Your task to perform on an android device: Show me productivity apps on the Play Store Image 0: 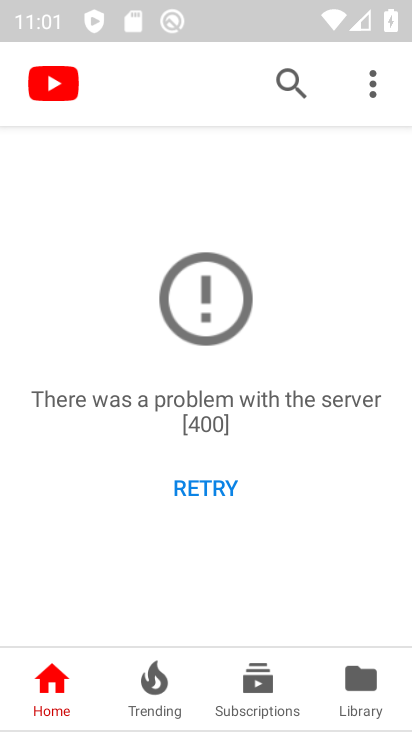
Step 0: press home button
Your task to perform on an android device: Show me productivity apps on the Play Store Image 1: 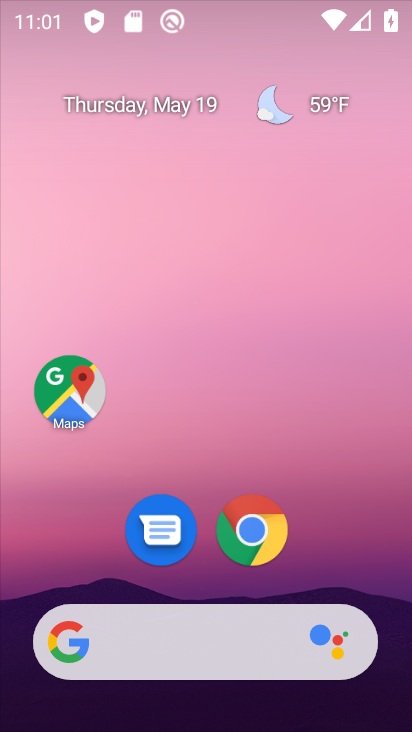
Step 1: drag from (368, 603) to (344, 119)
Your task to perform on an android device: Show me productivity apps on the Play Store Image 2: 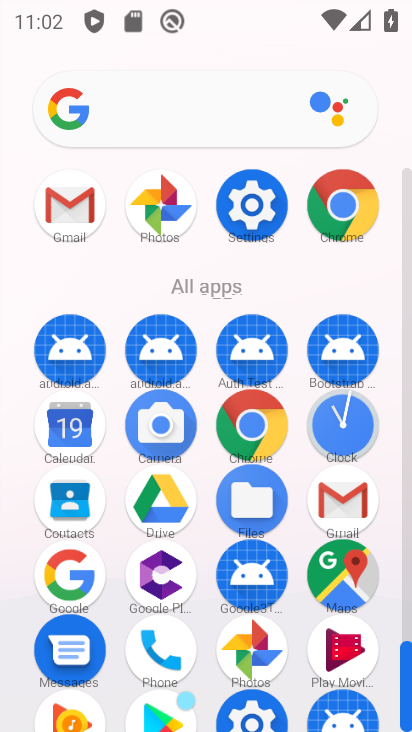
Step 2: drag from (203, 625) to (200, 318)
Your task to perform on an android device: Show me productivity apps on the Play Store Image 3: 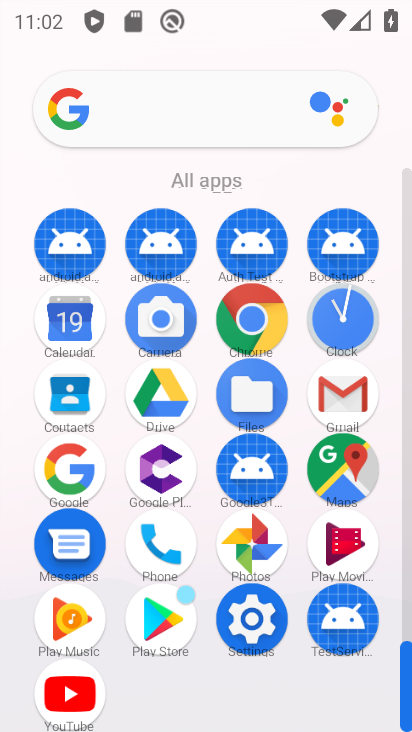
Step 3: click (155, 632)
Your task to perform on an android device: Show me productivity apps on the Play Store Image 4: 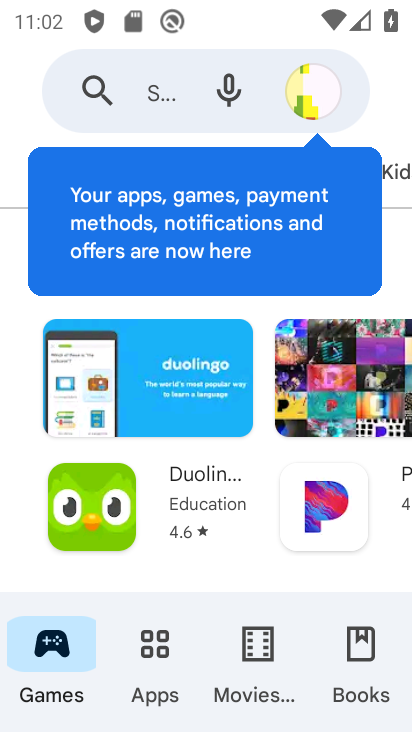
Step 4: click (161, 639)
Your task to perform on an android device: Show me productivity apps on the Play Store Image 5: 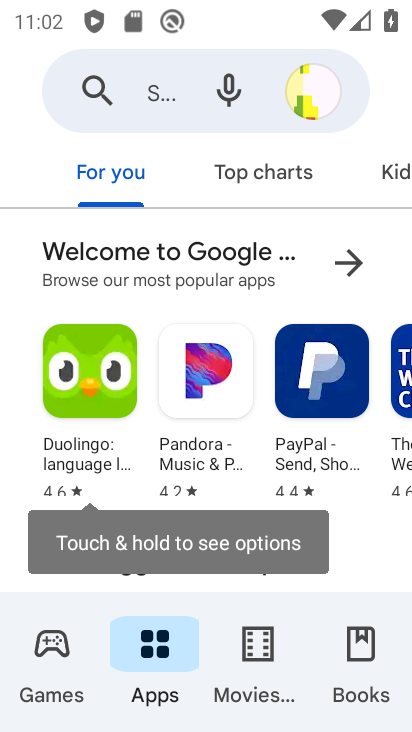
Step 5: drag from (361, 169) to (36, 190)
Your task to perform on an android device: Show me productivity apps on the Play Store Image 6: 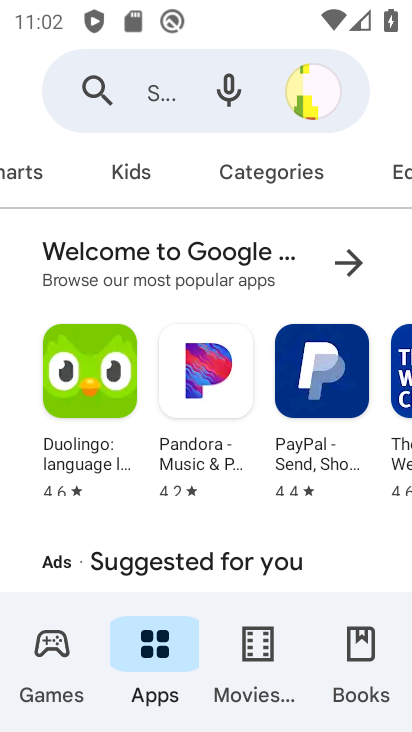
Step 6: click (298, 175)
Your task to perform on an android device: Show me productivity apps on the Play Store Image 7: 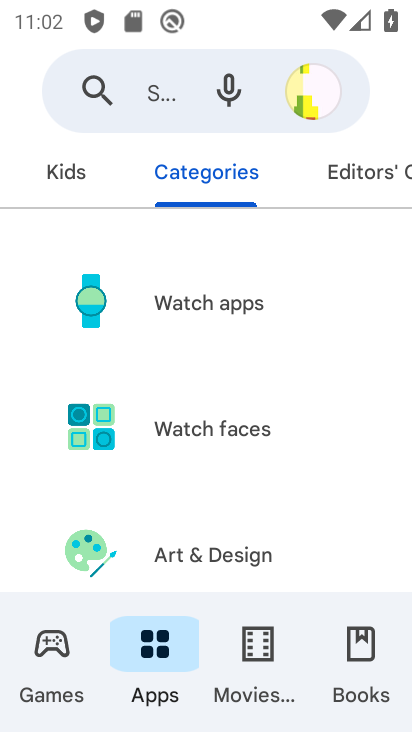
Step 7: drag from (290, 558) to (315, 228)
Your task to perform on an android device: Show me productivity apps on the Play Store Image 8: 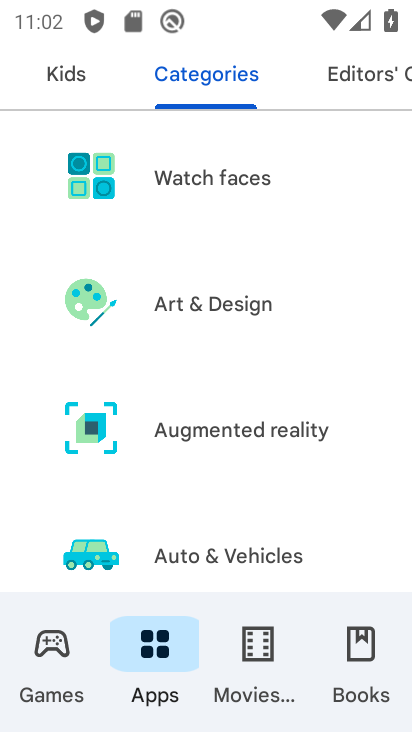
Step 8: drag from (304, 573) to (299, 242)
Your task to perform on an android device: Show me productivity apps on the Play Store Image 9: 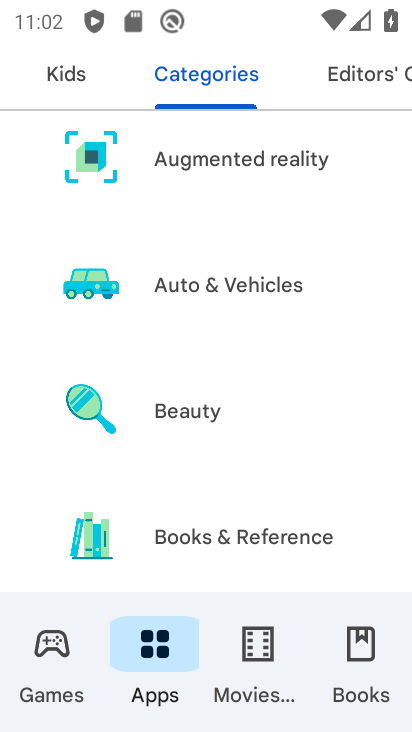
Step 9: drag from (292, 535) to (295, 202)
Your task to perform on an android device: Show me productivity apps on the Play Store Image 10: 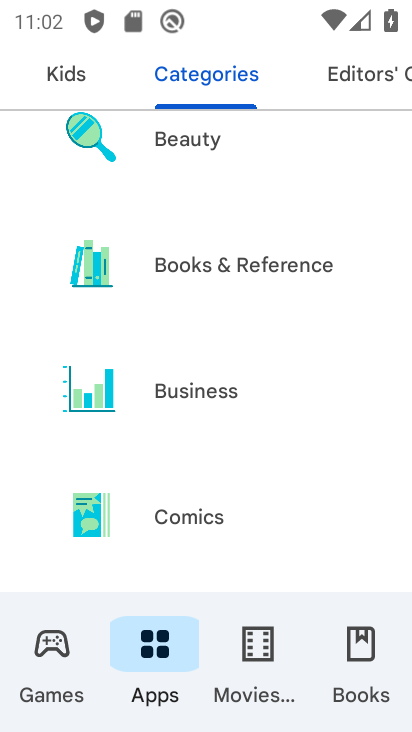
Step 10: drag from (244, 556) to (278, 190)
Your task to perform on an android device: Show me productivity apps on the Play Store Image 11: 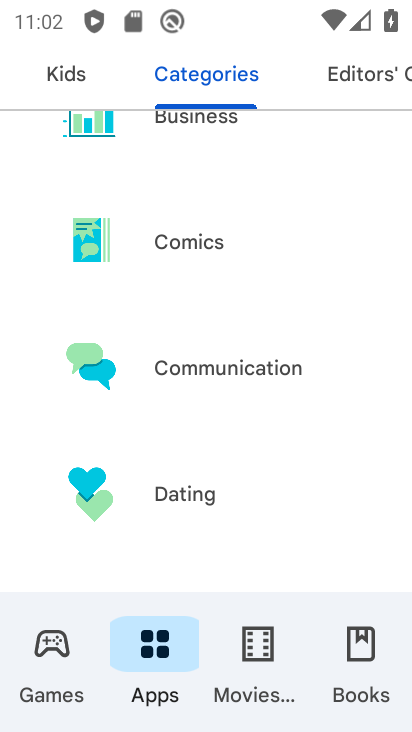
Step 11: drag from (266, 548) to (264, 212)
Your task to perform on an android device: Show me productivity apps on the Play Store Image 12: 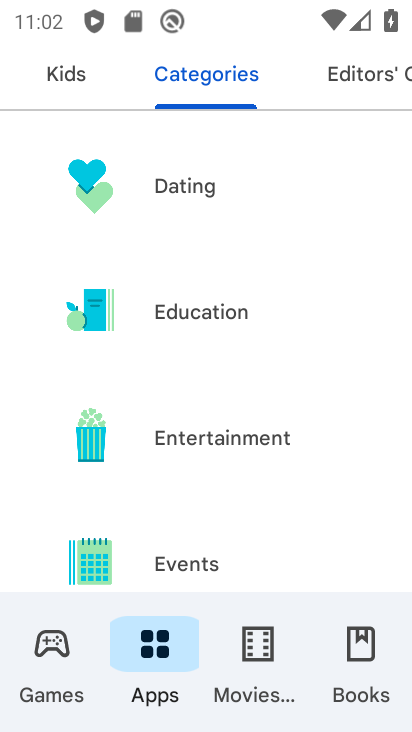
Step 12: drag from (265, 451) to (244, 140)
Your task to perform on an android device: Show me productivity apps on the Play Store Image 13: 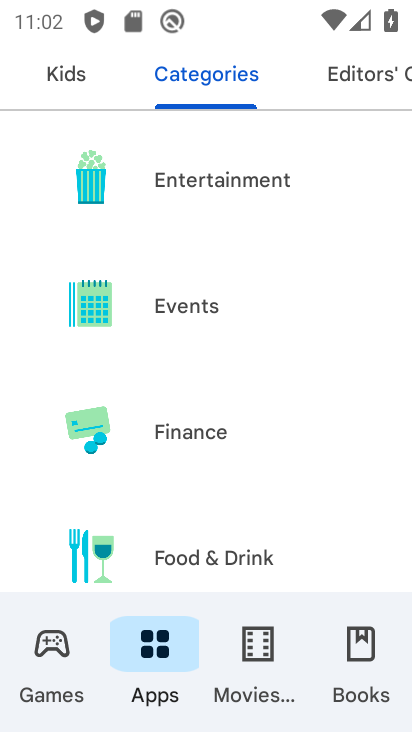
Step 13: drag from (274, 588) to (278, 211)
Your task to perform on an android device: Show me productivity apps on the Play Store Image 14: 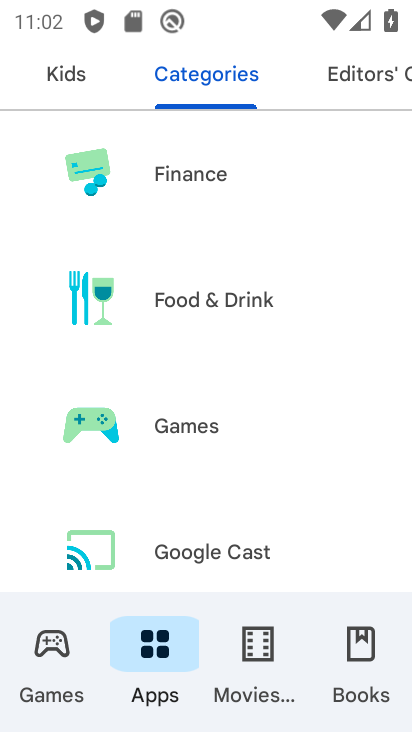
Step 14: drag from (243, 573) to (315, 227)
Your task to perform on an android device: Show me productivity apps on the Play Store Image 15: 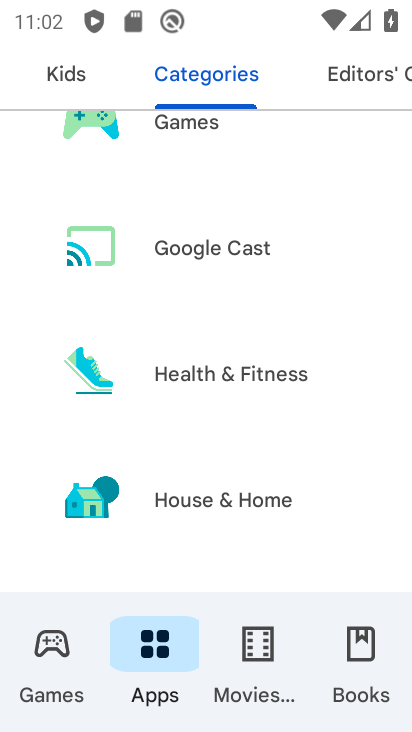
Step 15: drag from (272, 529) to (306, 270)
Your task to perform on an android device: Show me productivity apps on the Play Store Image 16: 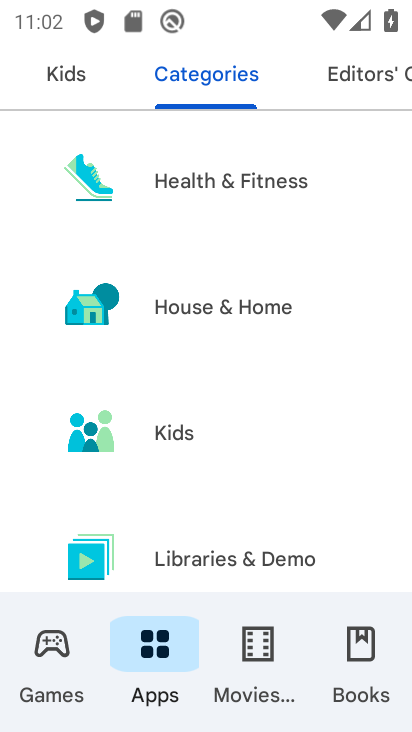
Step 16: drag from (295, 575) to (313, 289)
Your task to perform on an android device: Show me productivity apps on the Play Store Image 17: 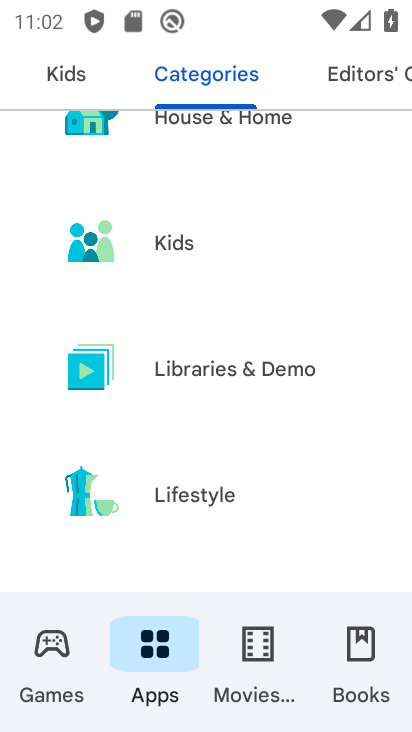
Step 17: drag from (278, 552) to (276, 312)
Your task to perform on an android device: Show me productivity apps on the Play Store Image 18: 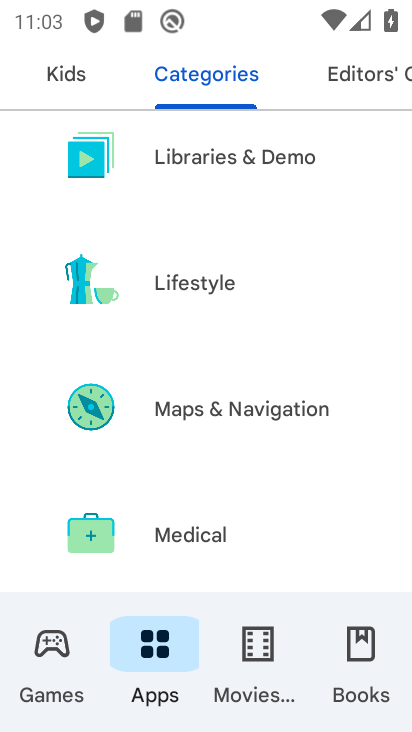
Step 18: drag from (268, 516) to (270, 143)
Your task to perform on an android device: Show me productivity apps on the Play Store Image 19: 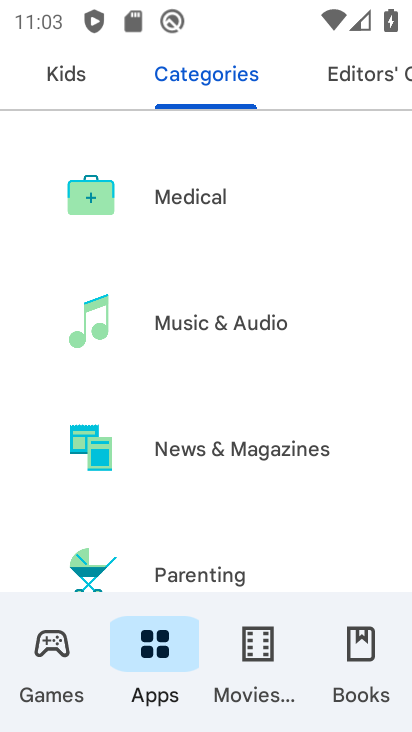
Step 19: drag from (253, 554) to (302, 193)
Your task to perform on an android device: Show me productivity apps on the Play Store Image 20: 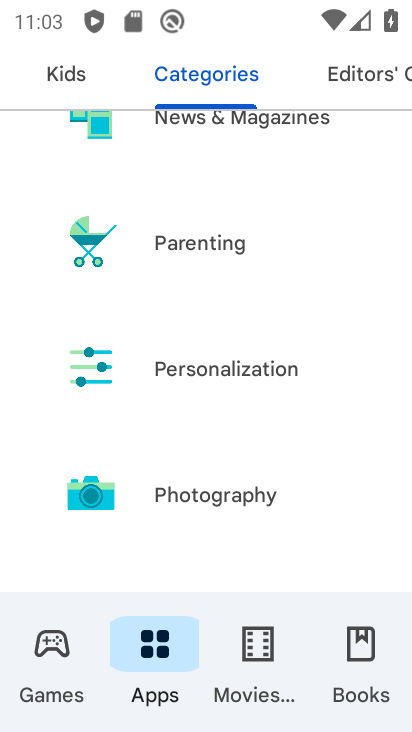
Step 20: drag from (340, 515) to (321, 200)
Your task to perform on an android device: Show me productivity apps on the Play Store Image 21: 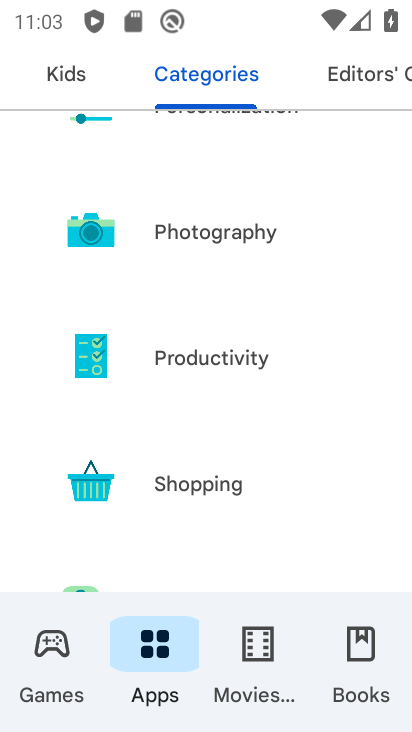
Step 21: click (232, 372)
Your task to perform on an android device: Show me productivity apps on the Play Store Image 22: 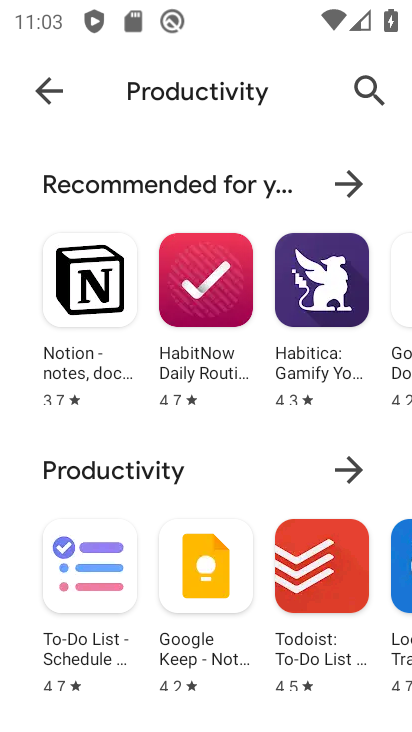
Step 22: task complete